Your task to perform on an android device: open wifi settings Image 0: 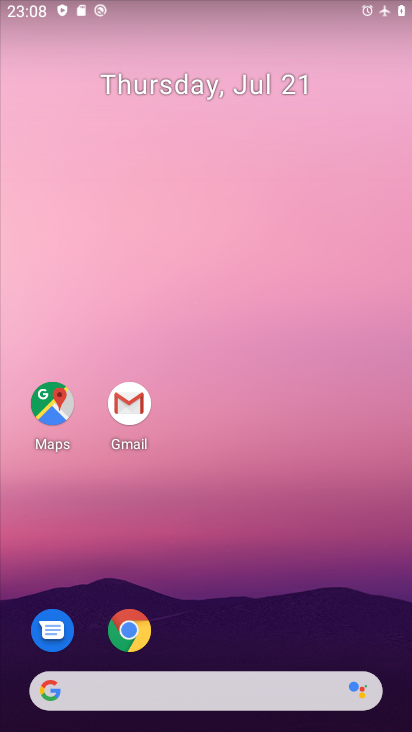
Step 0: press back button
Your task to perform on an android device: open wifi settings Image 1: 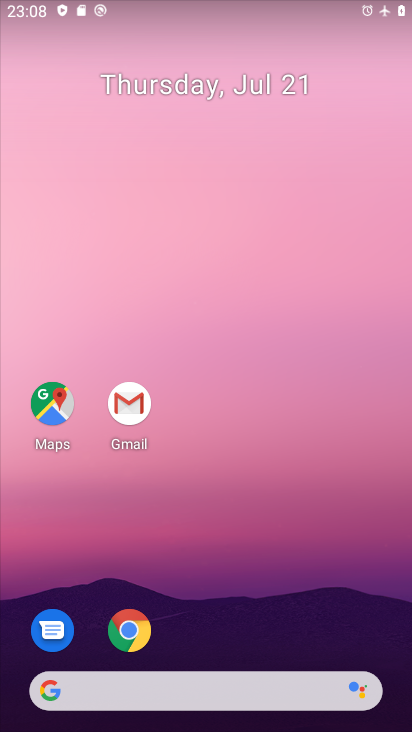
Step 1: press back button
Your task to perform on an android device: open wifi settings Image 2: 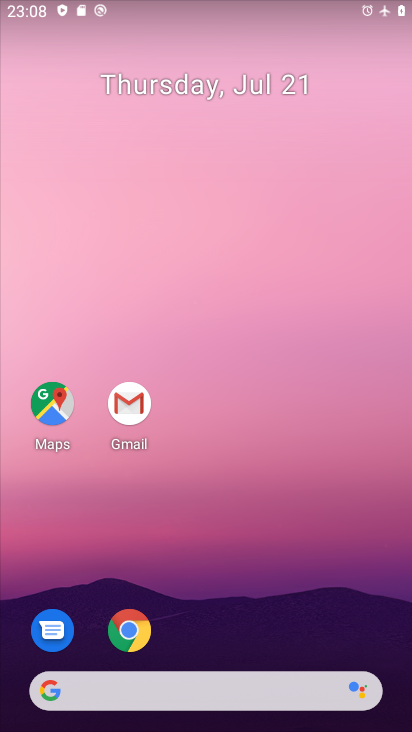
Step 2: drag from (212, 251) to (239, 202)
Your task to perform on an android device: open wifi settings Image 3: 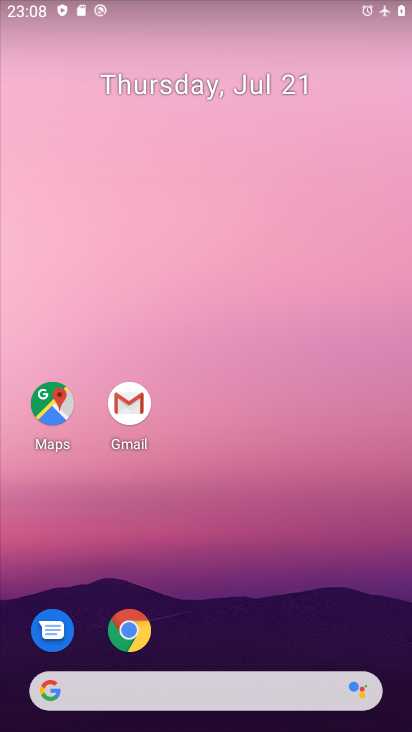
Step 3: click (204, 228)
Your task to perform on an android device: open wifi settings Image 4: 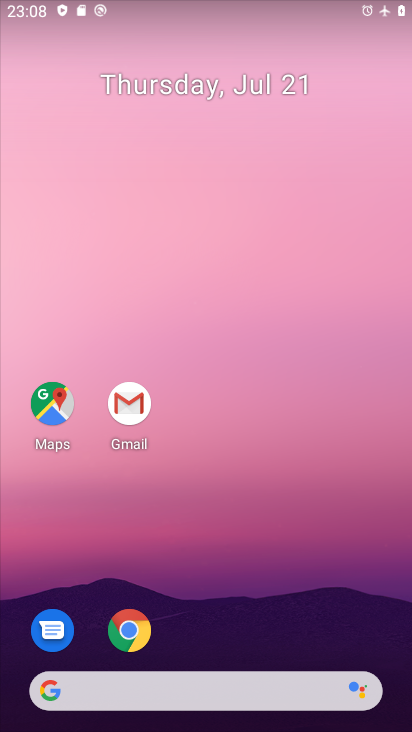
Step 4: click (218, 117)
Your task to perform on an android device: open wifi settings Image 5: 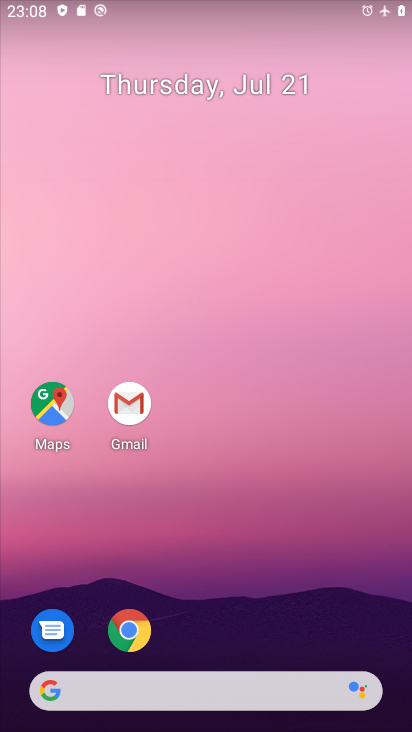
Step 5: drag from (237, 275) to (225, 26)
Your task to perform on an android device: open wifi settings Image 6: 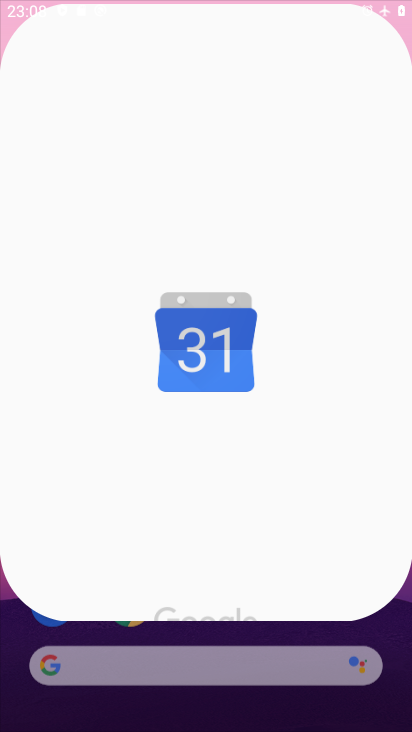
Step 6: drag from (219, 555) to (179, 107)
Your task to perform on an android device: open wifi settings Image 7: 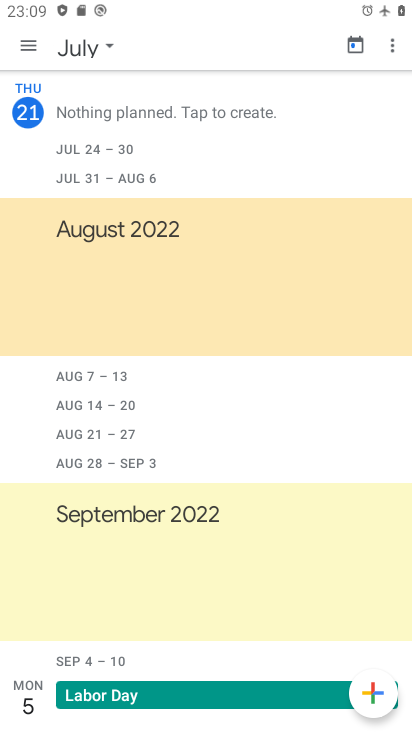
Step 7: press back button
Your task to perform on an android device: open wifi settings Image 8: 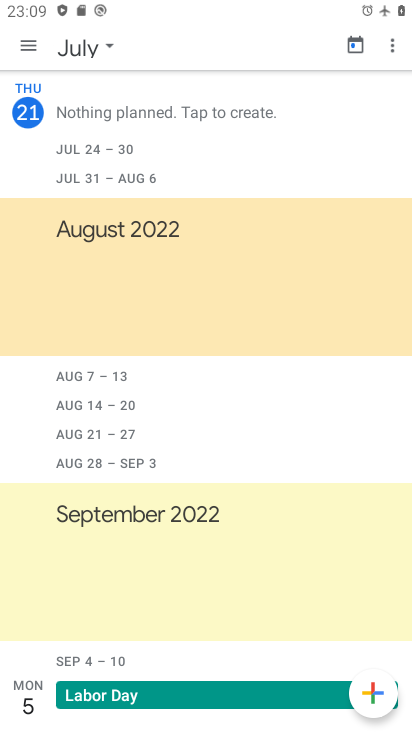
Step 8: press back button
Your task to perform on an android device: open wifi settings Image 9: 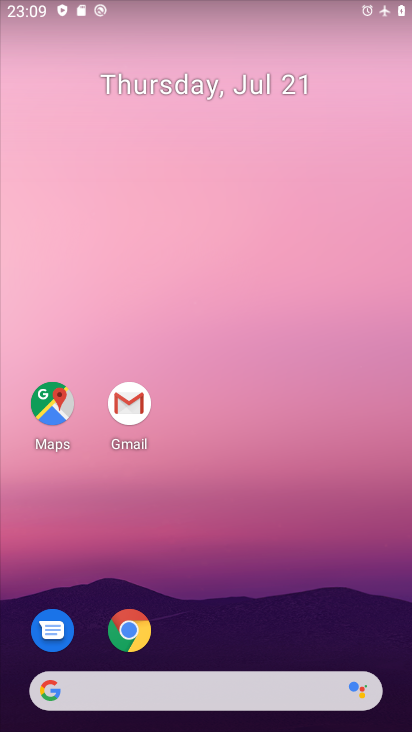
Step 9: click (148, 249)
Your task to perform on an android device: open wifi settings Image 10: 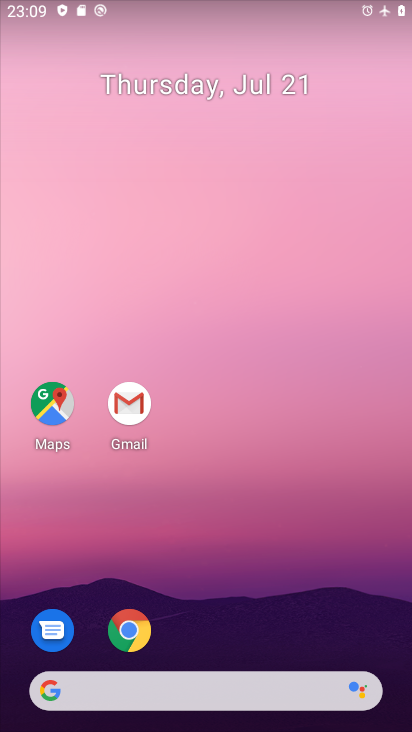
Step 10: drag from (214, 611) to (121, 136)
Your task to perform on an android device: open wifi settings Image 11: 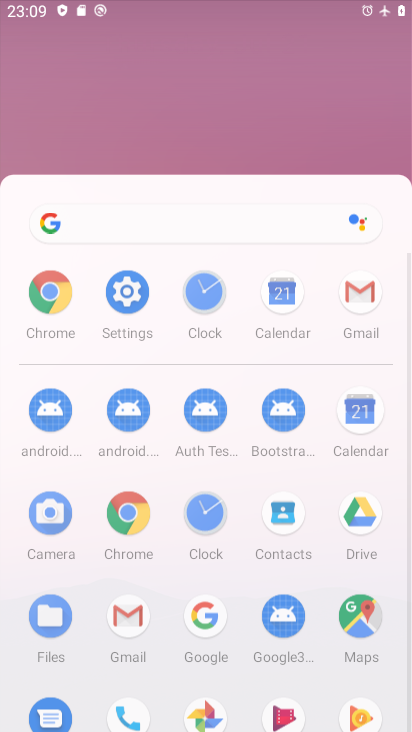
Step 11: drag from (190, 498) to (181, 159)
Your task to perform on an android device: open wifi settings Image 12: 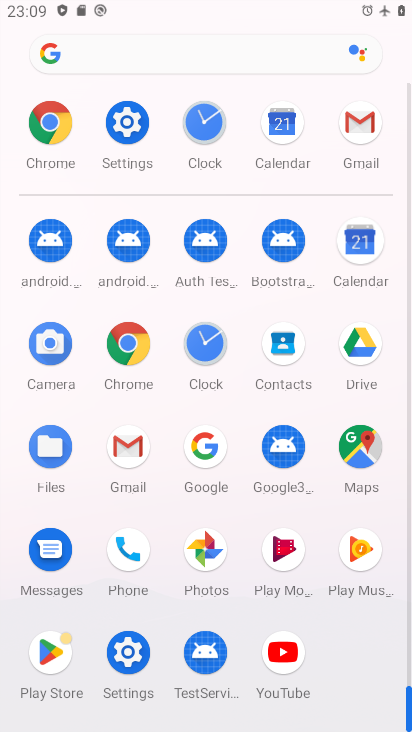
Step 12: click (138, 123)
Your task to perform on an android device: open wifi settings Image 13: 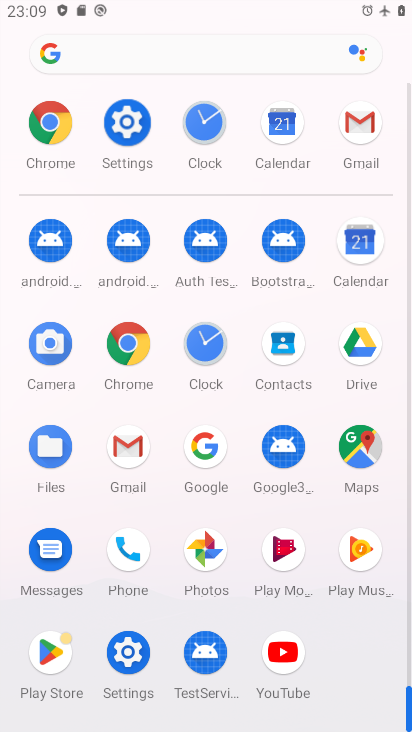
Step 13: click (138, 122)
Your task to perform on an android device: open wifi settings Image 14: 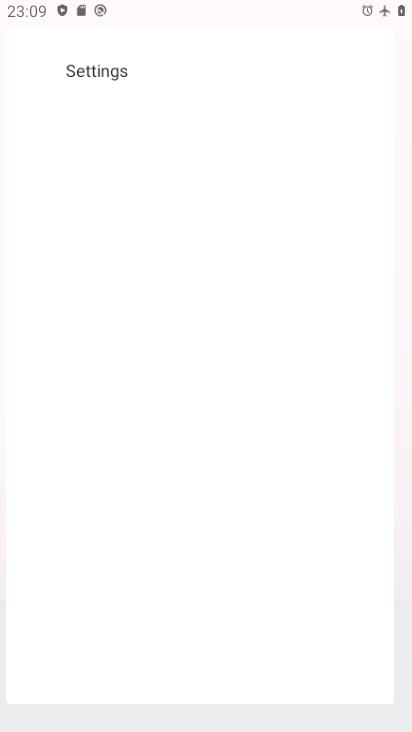
Step 14: click (138, 122)
Your task to perform on an android device: open wifi settings Image 15: 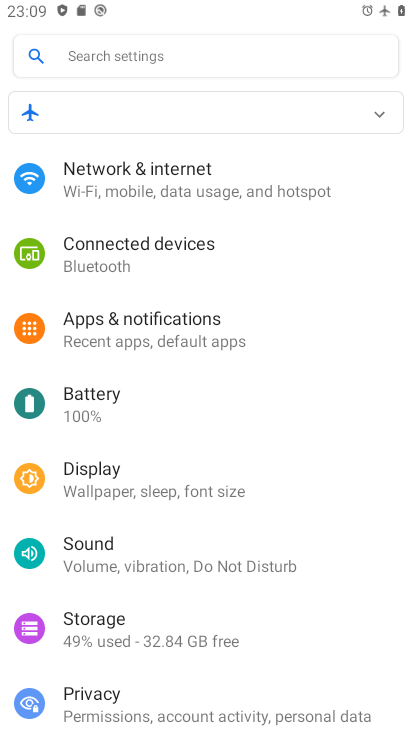
Step 15: click (166, 187)
Your task to perform on an android device: open wifi settings Image 16: 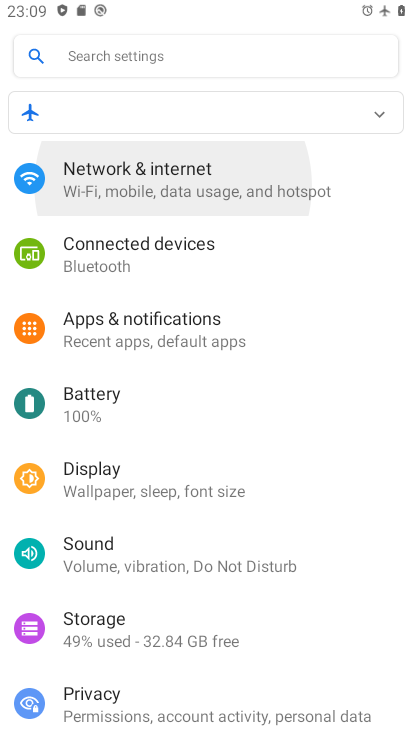
Step 16: click (166, 179)
Your task to perform on an android device: open wifi settings Image 17: 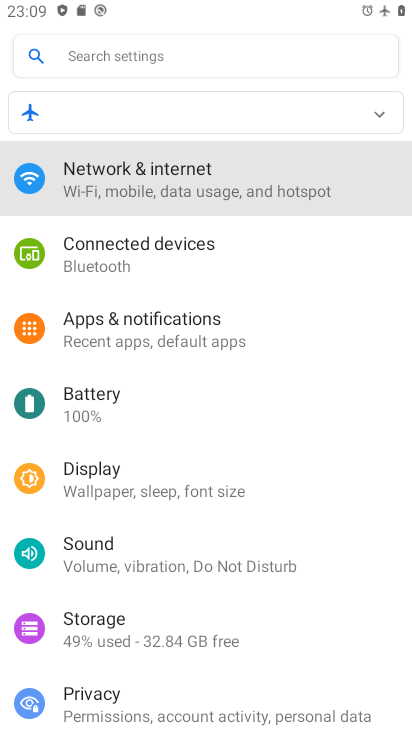
Step 17: click (166, 179)
Your task to perform on an android device: open wifi settings Image 18: 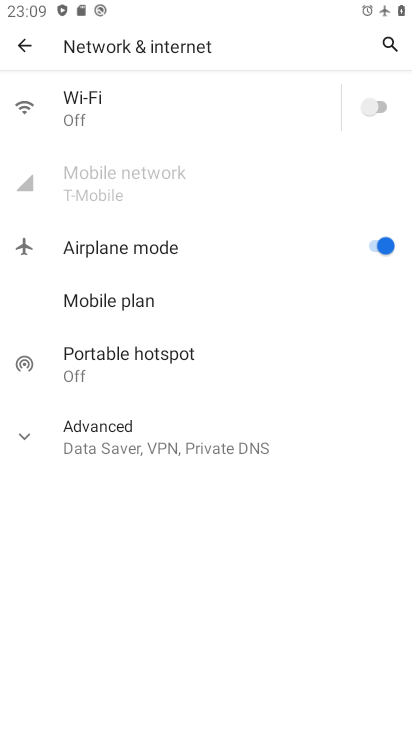
Step 18: click (372, 100)
Your task to perform on an android device: open wifi settings Image 19: 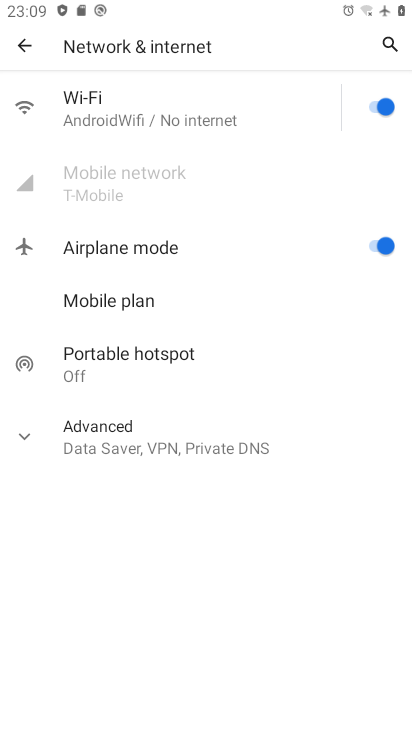
Step 19: task complete